Your task to perform on an android device: Open Google Chrome Image 0: 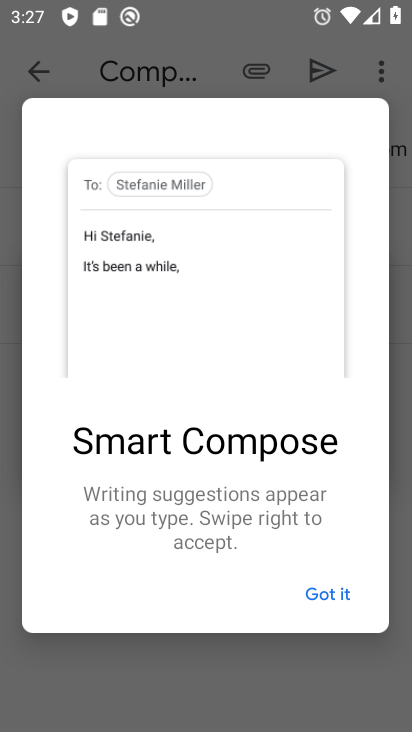
Step 0: press home button
Your task to perform on an android device: Open Google Chrome Image 1: 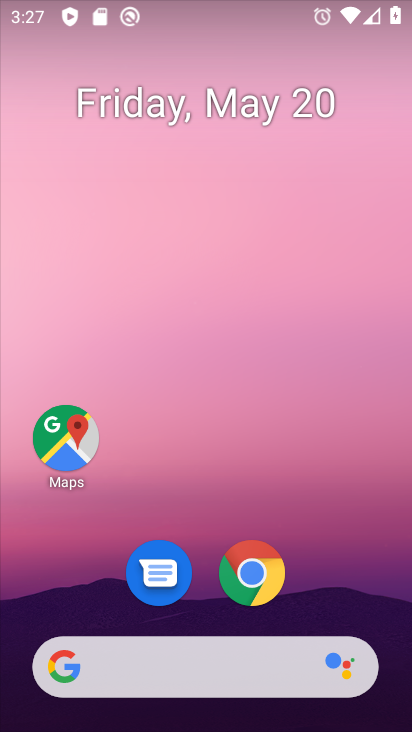
Step 1: drag from (227, 627) to (237, 5)
Your task to perform on an android device: Open Google Chrome Image 2: 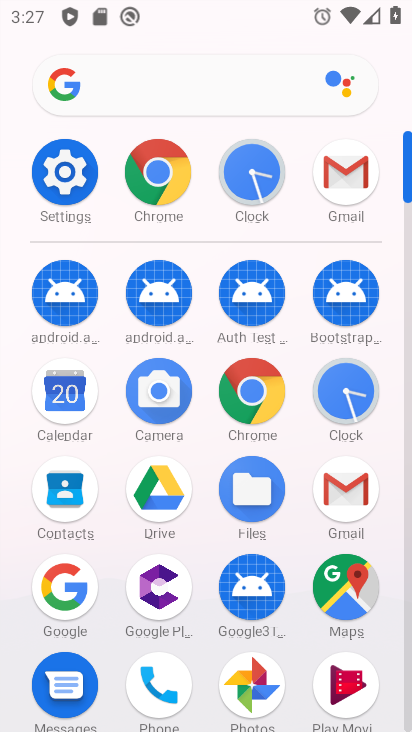
Step 2: click (235, 401)
Your task to perform on an android device: Open Google Chrome Image 3: 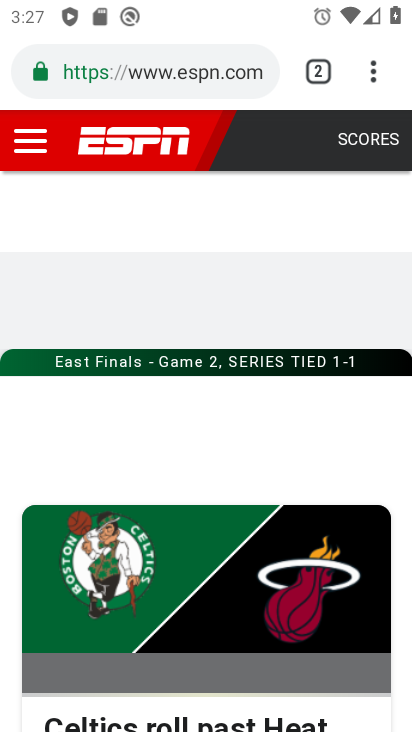
Step 3: task complete